Your task to perform on an android device: What's the weather today? Image 0: 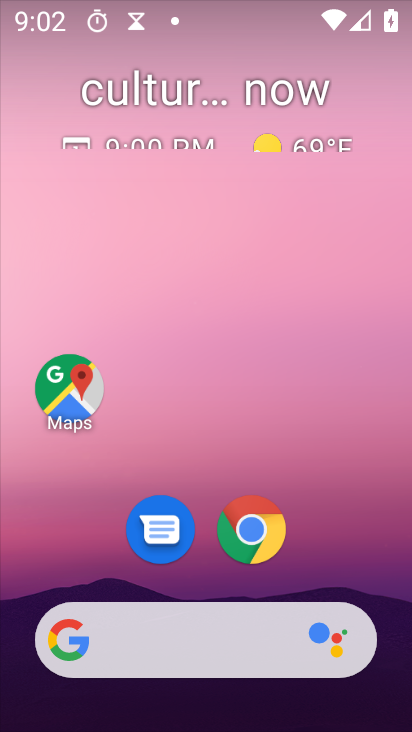
Step 0: click (219, 640)
Your task to perform on an android device: What's the weather today? Image 1: 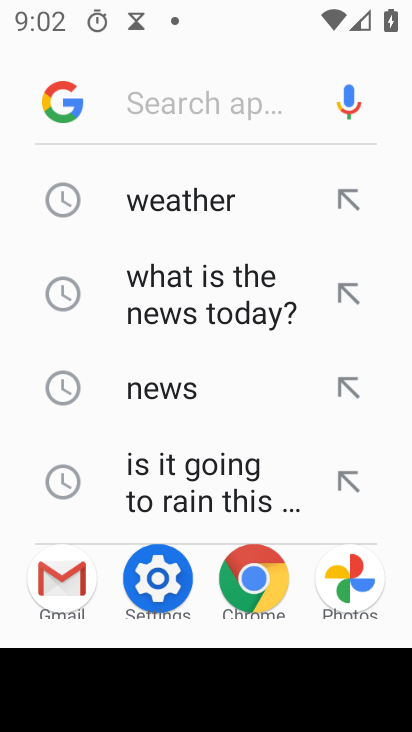
Step 1: click (198, 191)
Your task to perform on an android device: What's the weather today? Image 2: 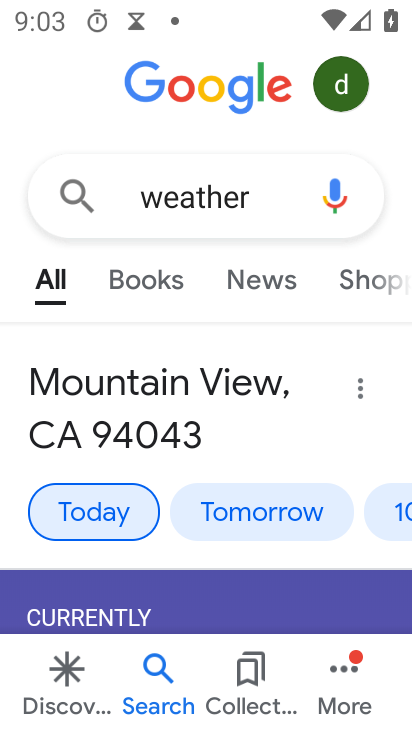
Step 2: task complete